Your task to perform on an android device: read, delete, or share a saved page in the chrome app Image 0: 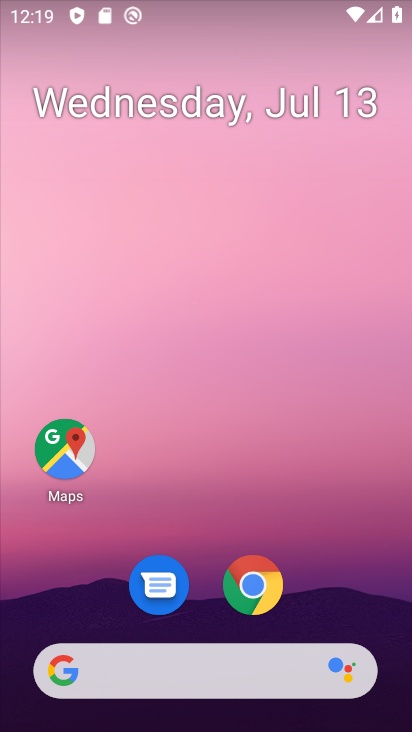
Step 0: drag from (321, 509) to (292, 243)
Your task to perform on an android device: read, delete, or share a saved page in the chrome app Image 1: 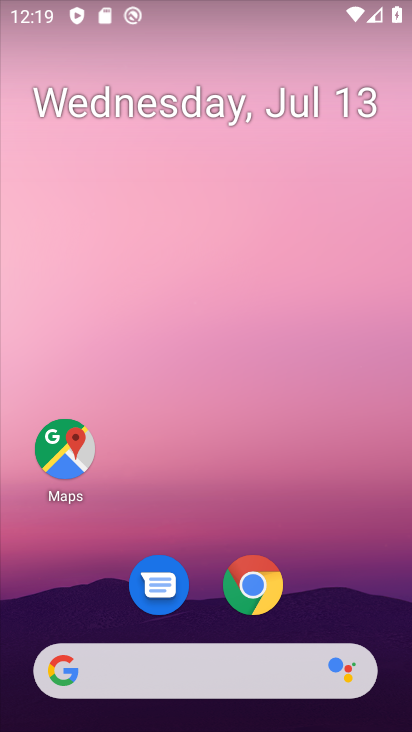
Step 1: click (262, 576)
Your task to perform on an android device: read, delete, or share a saved page in the chrome app Image 2: 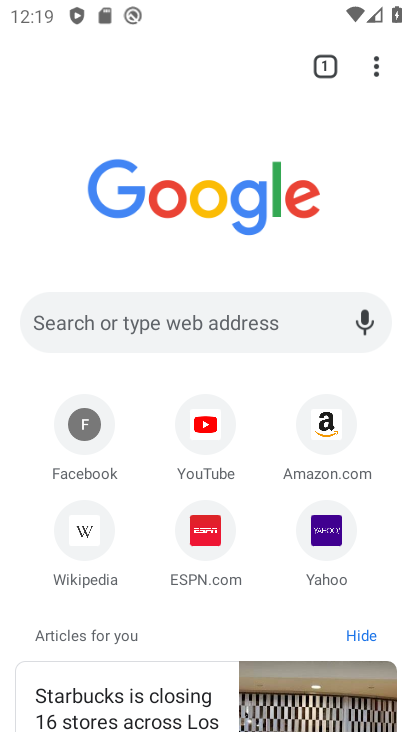
Step 2: click (376, 66)
Your task to perform on an android device: read, delete, or share a saved page in the chrome app Image 3: 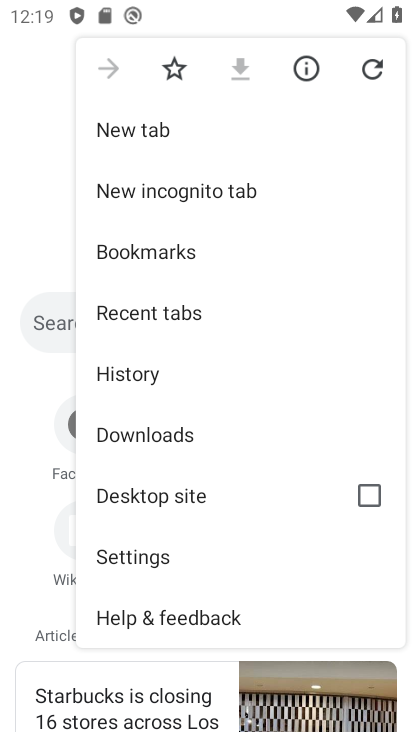
Step 3: click (182, 430)
Your task to perform on an android device: read, delete, or share a saved page in the chrome app Image 4: 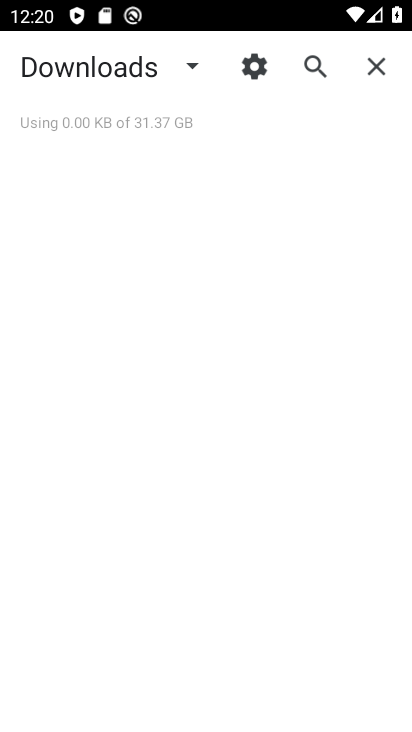
Step 4: task complete